Your task to perform on an android device: refresh tabs in the chrome app Image 0: 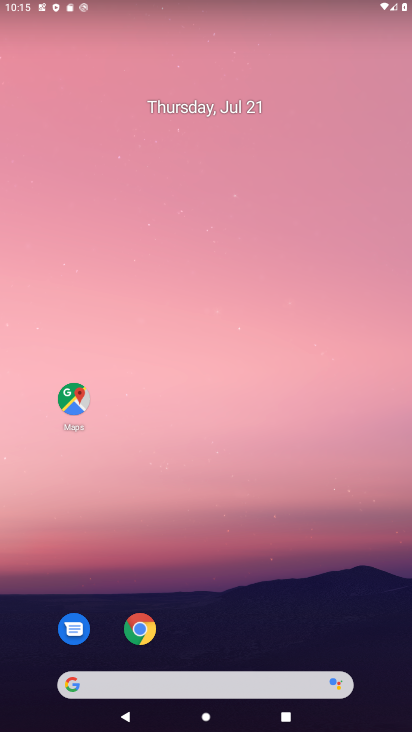
Step 0: drag from (291, 599) to (260, 120)
Your task to perform on an android device: refresh tabs in the chrome app Image 1: 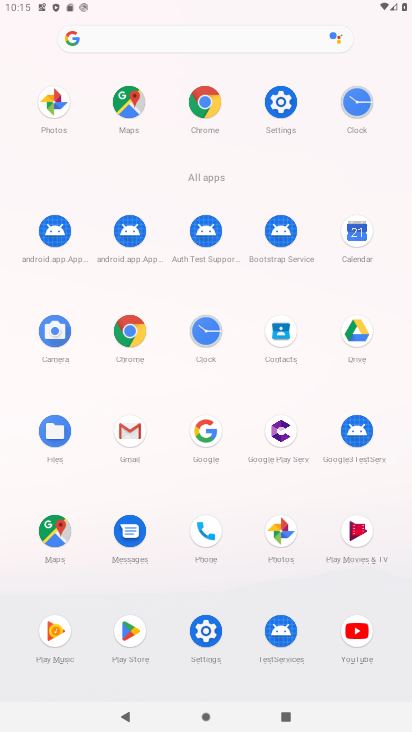
Step 1: click (129, 321)
Your task to perform on an android device: refresh tabs in the chrome app Image 2: 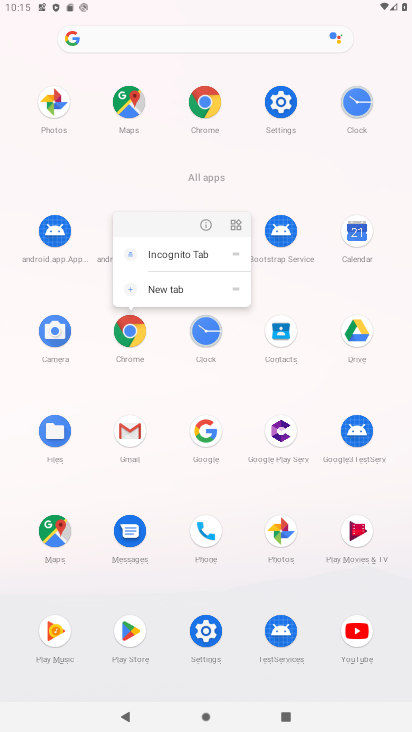
Step 2: click (131, 337)
Your task to perform on an android device: refresh tabs in the chrome app Image 3: 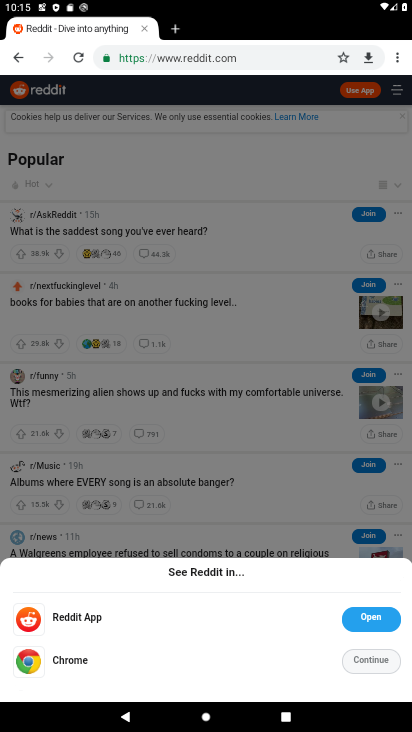
Step 3: click (393, 56)
Your task to perform on an android device: refresh tabs in the chrome app Image 4: 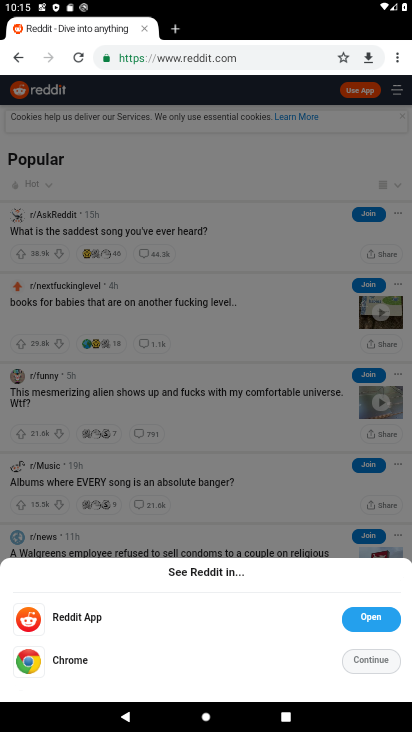
Step 4: click (74, 54)
Your task to perform on an android device: refresh tabs in the chrome app Image 5: 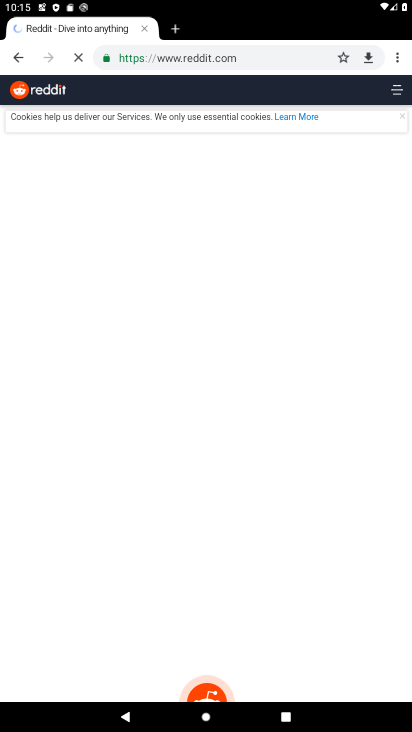
Step 5: task complete